Your task to perform on an android device: turn off airplane mode Image 0: 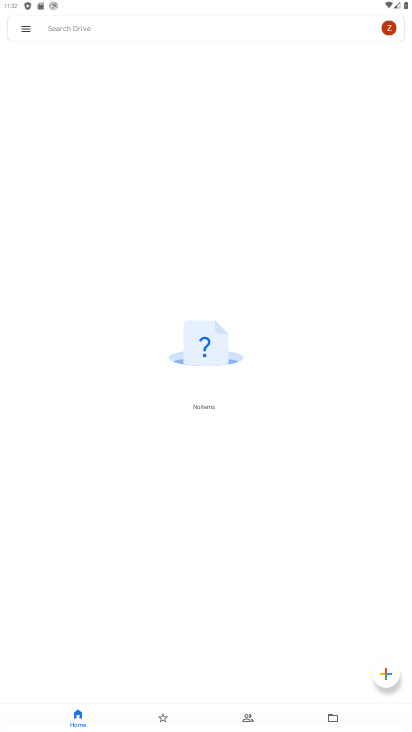
Step 0: press home button
Your task to perform on an android device: turn off airplane mode Image 1: 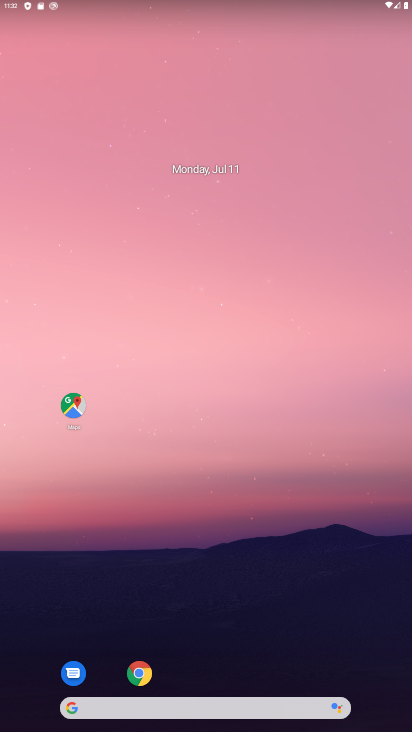
Step 1: task complete